Your task to perform on an android device: Show the shopping cart on costco.com. Add "amazon basics triple a" to the cart on costco.com, then select checkout. Image 0: 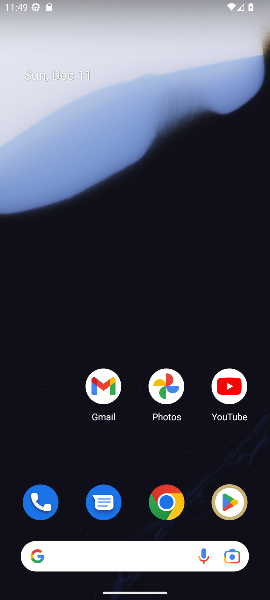
Step 0: click (169, 555)
Your task to perform on an android device: Show the shopping cart on costco.com. Add "amazon basics triple a" to the cart on costco.com, then select checkout. Image 1: 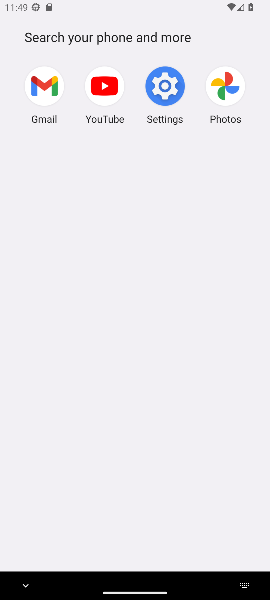
Step 1: press home button
Your task to perform on an android device: Show the shopping cart on costco.com. Add "amazon basics triple a" to the cart on costco.com, then select checkout. Image 2: 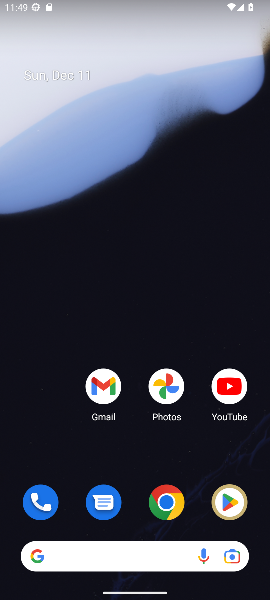
Step 2: click (175, 503)
Your task to perform on an android device: Show the shopping cart on costco.com. Add "amazon basics triple a" to the cart on costco.com, then select checkout. Image 3: 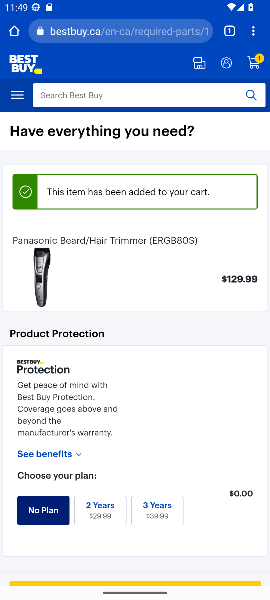
Step 3: click (127, 27)
Your task to perform on an android device: Show the shopping cart on costco.com. Add "amazon basics triple a" to the cart on costco.com, then select checkout. Image 4: 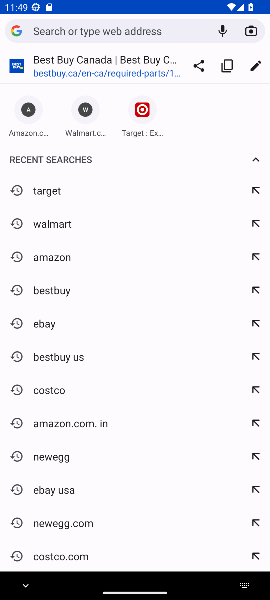
Step 4: click (68, 396)
Your task to perform on an android device: Show the shopping cart on costco.com. Add "amazon basics triple a" to the cart on costco.com, then select checkout. Image 5: 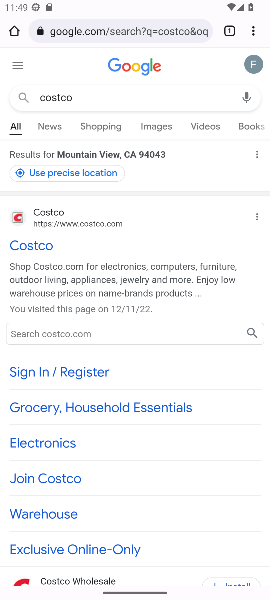
Step 5: click (45, 238)
Your task to perform on an android device: Show the shopping cart on costco.com. Add "amazon basics triple a" to the cart on costco.com, then select checkout. Image 6: 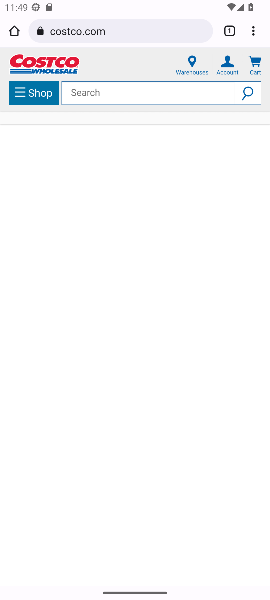
Step 6: click (125, 101)
Your task to perform on an android device: Show the shopping cart on costco.com. Add "amazon basics triple a" to the cart on costco.com, then select checkout. Image 7: 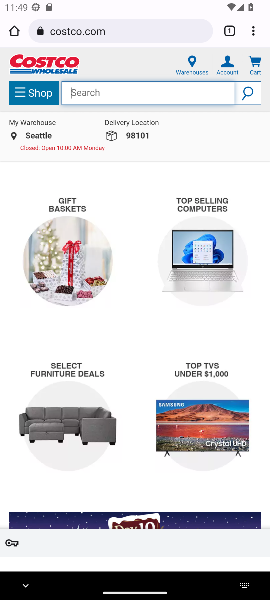
Step 7: type "amazon basics triple a"
Your task to perform on an android device: Show the shopping cart on costco.com. Add "amazon basics triple a" to the cart on costco.com, then select checkout. Image 8: 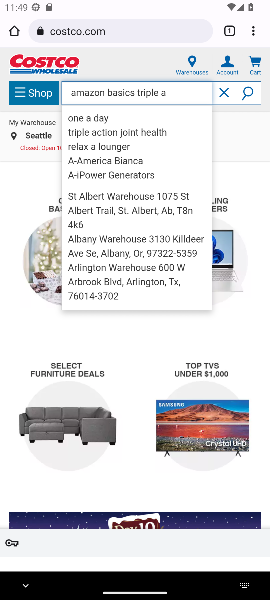
Step 8: click (244, 96)
Your task to perform on an android device: Show the shopping cart on costco.com. Add "amazon basics triple a" to the cart on costco.com, then select checkout. Image 9: 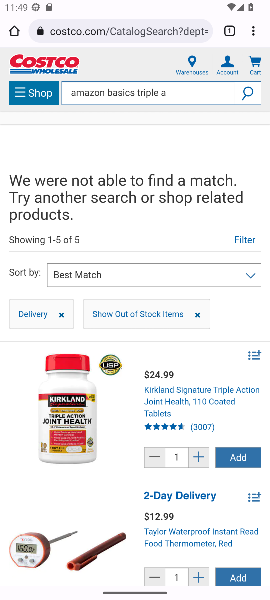
Step 9: task complete